Your task to perform on an android device: Turn off the flashlight Image 0: 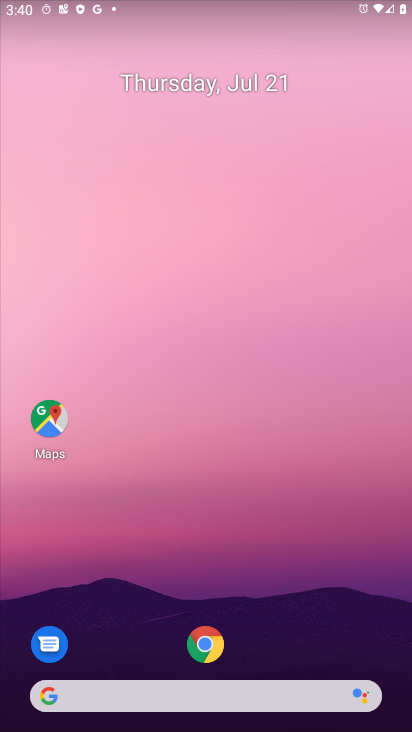
Step 0: press home button
Your task to perform on an android device: Turn off the flashlight Image 1: 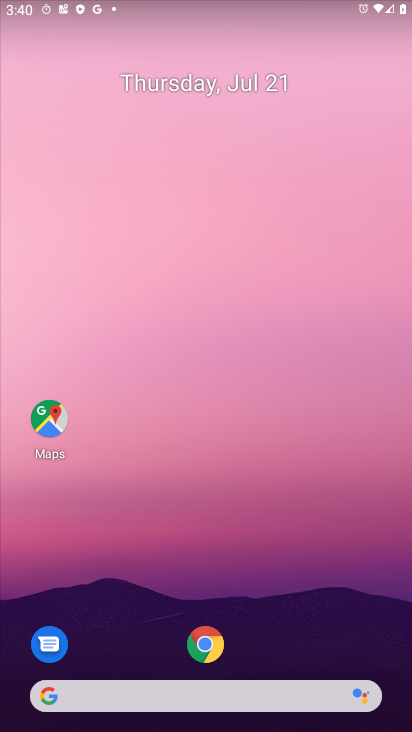
Step 1: task complete